Your task to perform on an android device: Open display settings Image 0: 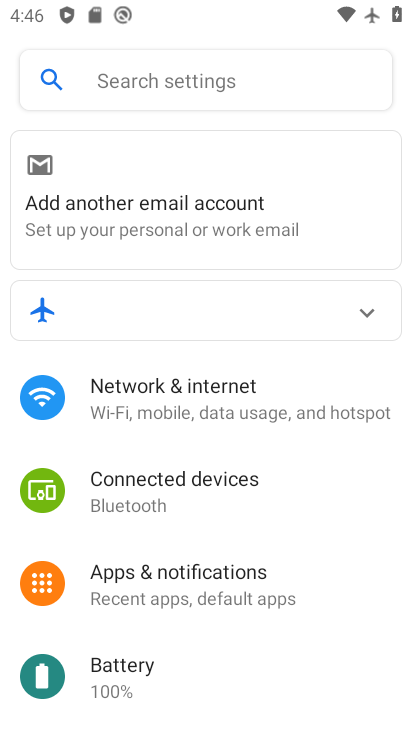
Step 0: drag from (226, 563) to (250, 77)
Your task to perform on an android device: Open display settings Image 1: 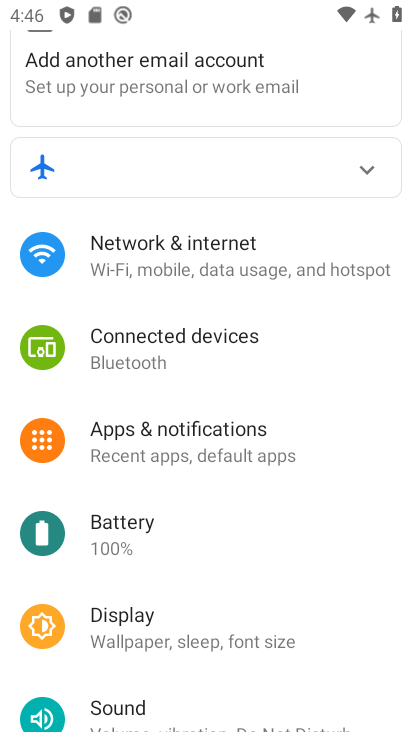
Step 1: click (201, 641)
Your task to perform on an android device: Open display settings Image 2: 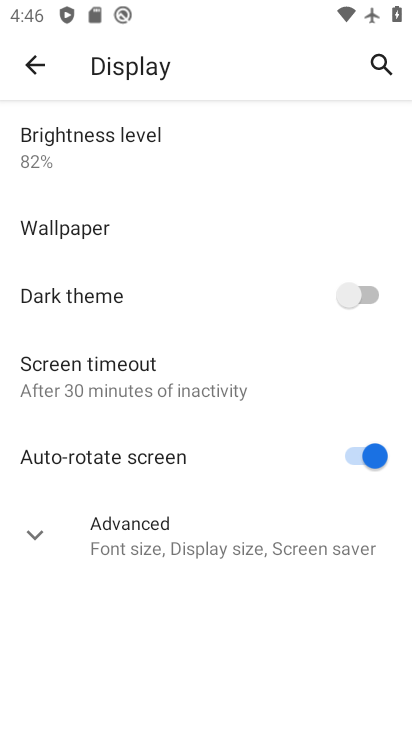
Step 2: task complete